Your task to perform on an android device: refresh tabs in the chrome app Image 0: 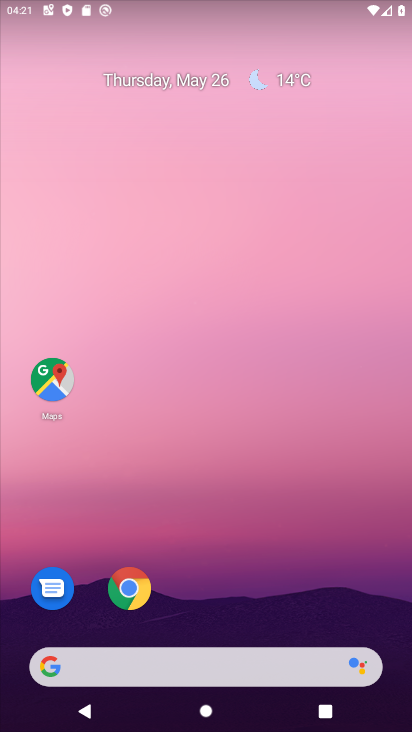
Step 0: click (120, 589)
Your task to perform on an android device: refresh tabs in the chrome app Image 1: 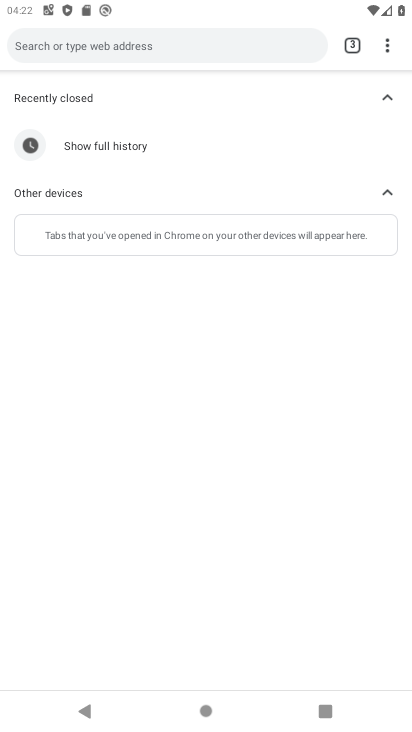
Step 1: click (397, 47)
Your task to perform on an android device: refresh tabs in the chrome app Image 2: 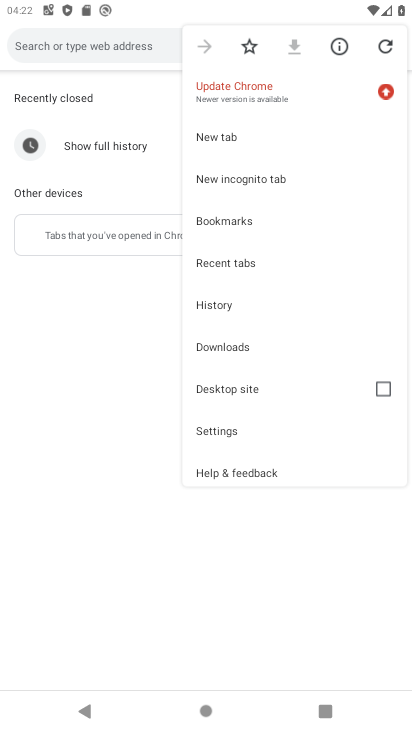
Step 2: click (392, 48)
Your task to perform on an android device: refresh tabs in the chrome app Image 3: 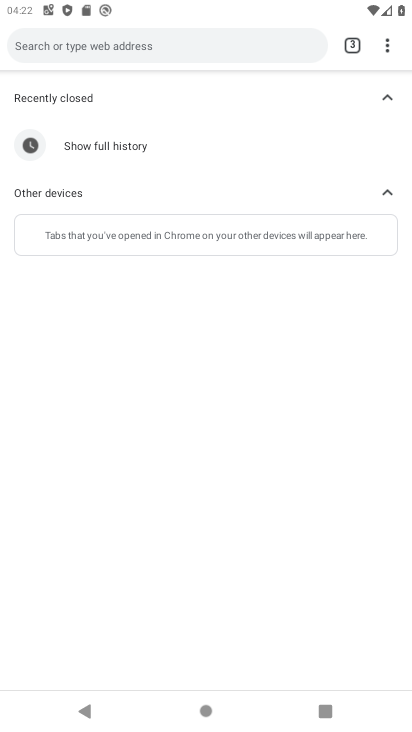
Step 3: task complete